Your task to perform on an android device: Go to accessibility settings Image 0: 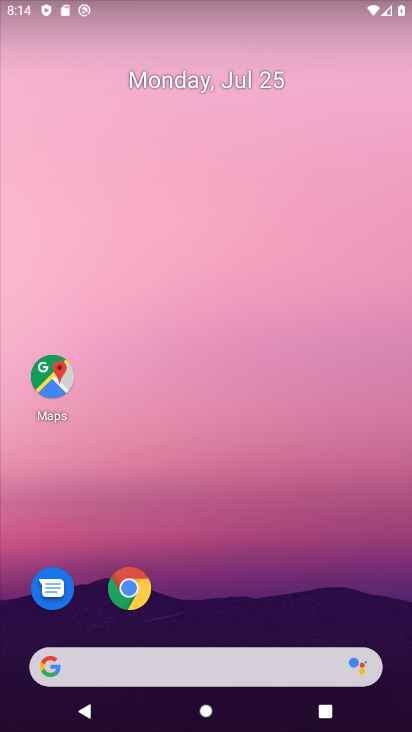
Step 0: press home button
Your task to perform on an android device: Go to accessibility settings Image 1: 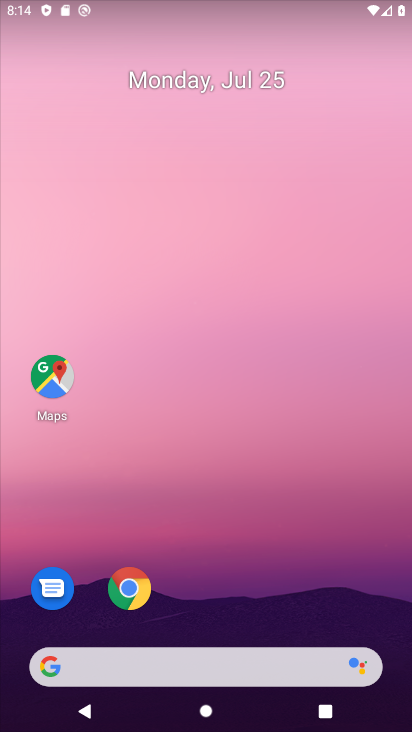
Step 1: drag from (345, 560) to (326, 88)
Your task to perform on an android device: Go to accessibility settings Image 2: 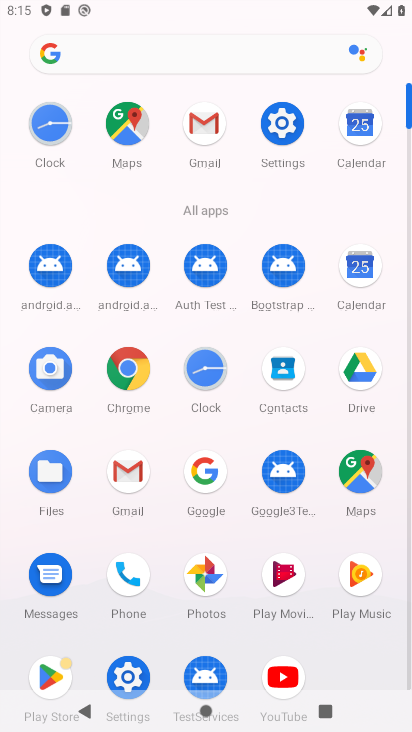
Step 2: click (287, 130)
Your task to perform on an android device: Go to accessibility settings Image 3: 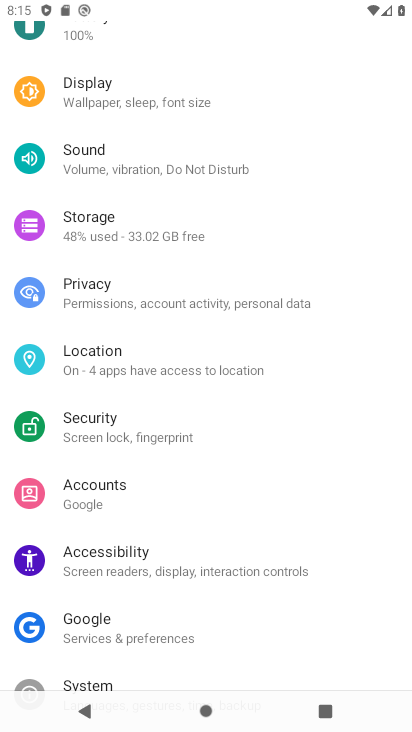
Step 3: drag from (332, 456) to (348, 361)
Your task to perform on an android device: Go to accessibility settings Image 4: 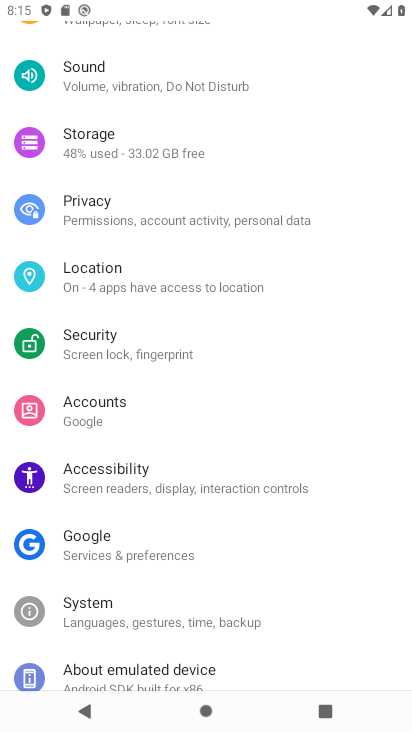
Step 4: drag from (347, 510) to (350, 360)
Your task to perform on an android device: Go to accessibility settings Image 5: 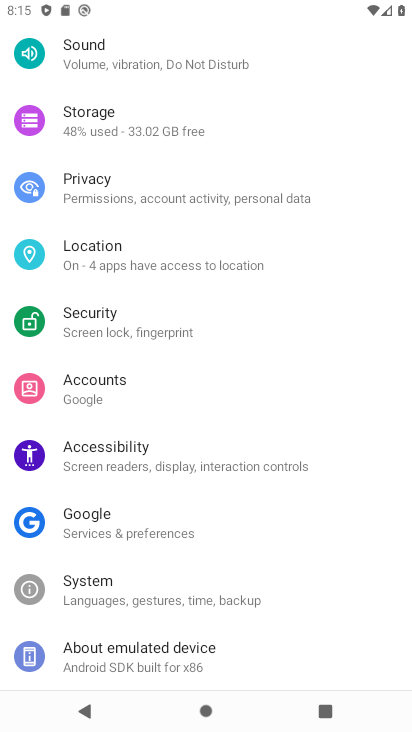
Step 5: click (194, 471)
Your task to perform on an android device: Go to accessibility settings Image 6: 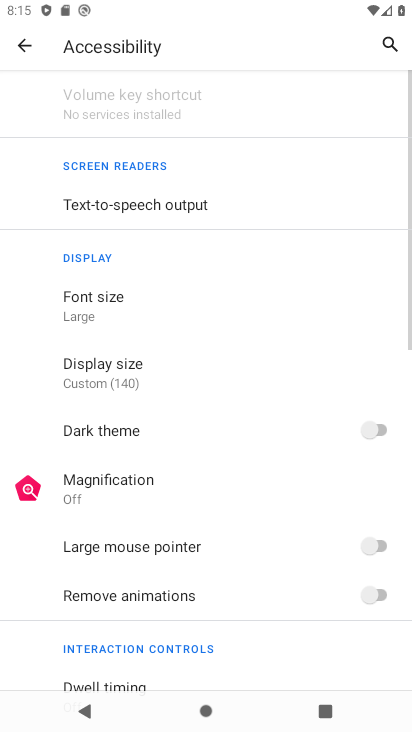
Step 6: task complete